Your task to perform on an android device: What is the recent news? Image 0: 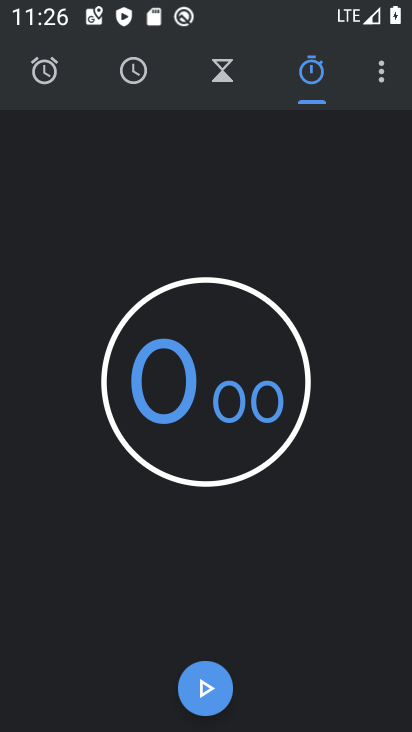
Step 0: press home button
Your task to perform on an android device: What is the recent news? Image 1: 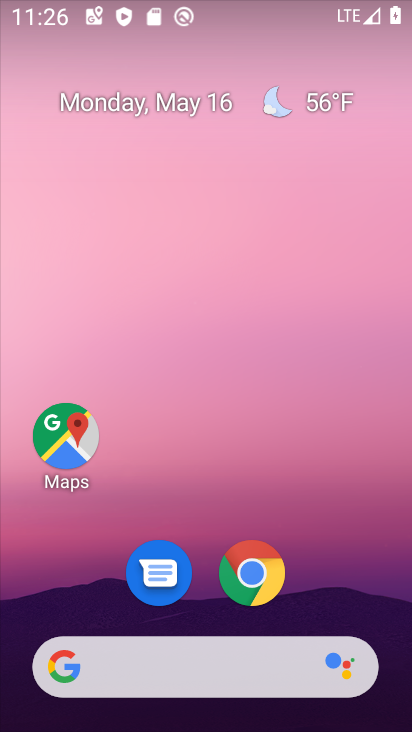
Step 1: click (229, 666)
Your task to perform on an android device: What is the recent news? Image 2: 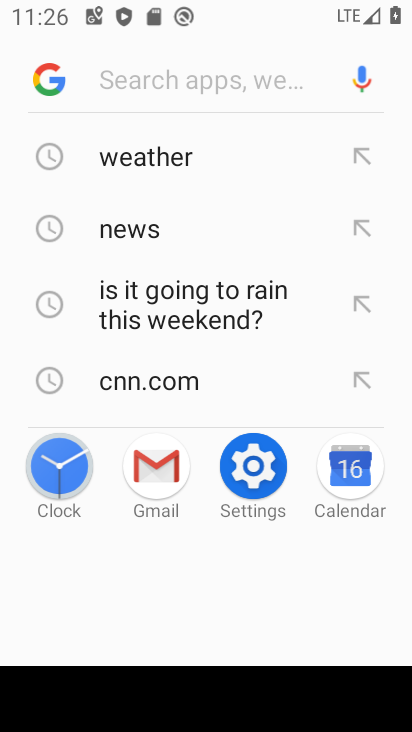
Step 2: type "recent news"
Your task to perform on an android device: What is the recent news? Image 3: 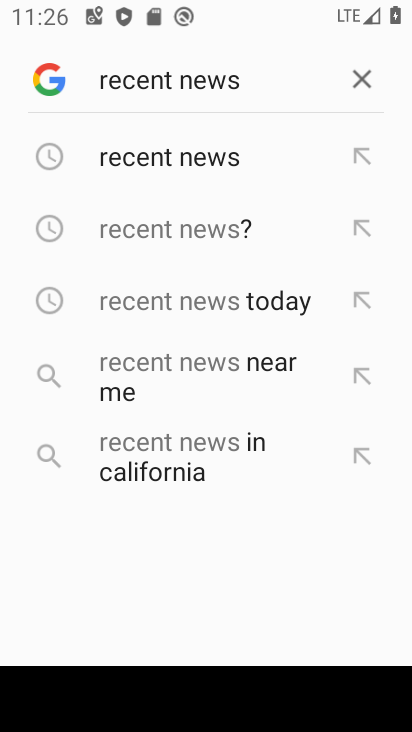
Step 3: click (302, 160)
Your task to perform on an android device: What is the recent news? Image 4: 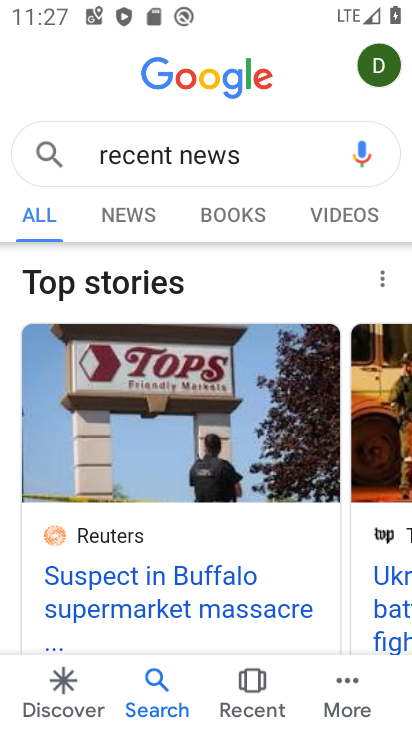
Step 4: task complete